Your task to perform on an android device: turn pop-ups on in chrome Image 0: 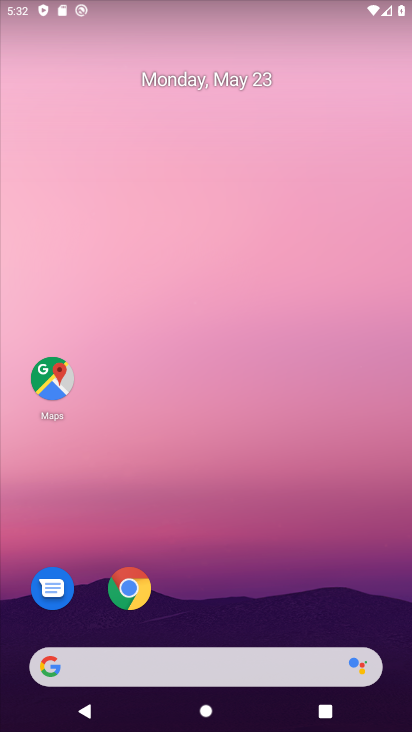
Step 0: drag from (261, 560) to (263, 2)
Your task to perform on an android device: turn pop-ups on in chrome Image 1: 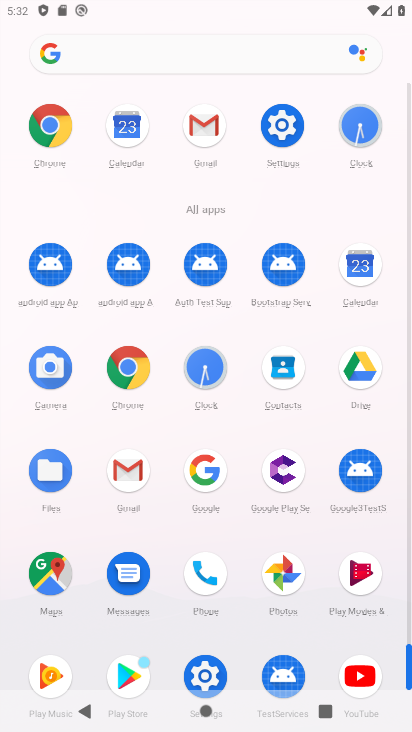
Step 1: click (123, 363)
Your task to perform on an android device: turn pop-ups on in chrome Image 2: 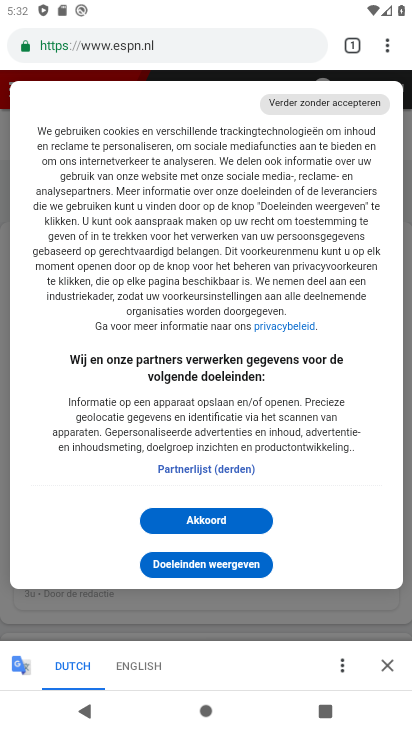
Step 2: click (169, 45)
Your task to perform on an android device: turn pop-ups on in chrome Image 3: 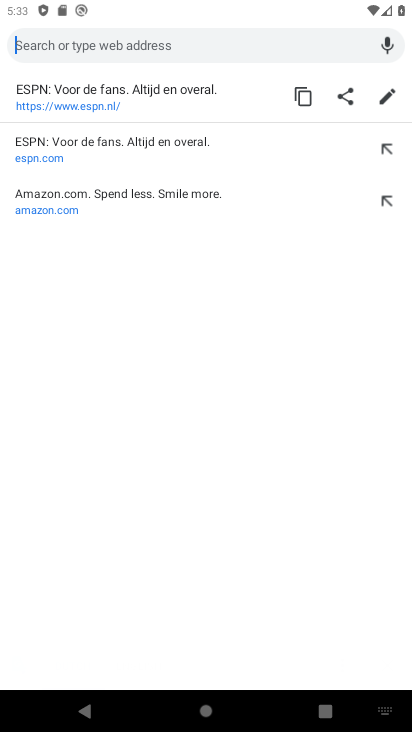
Step 3: press back button
Your task to perform on an android device: turn pop-ups on in chrome Image 4: 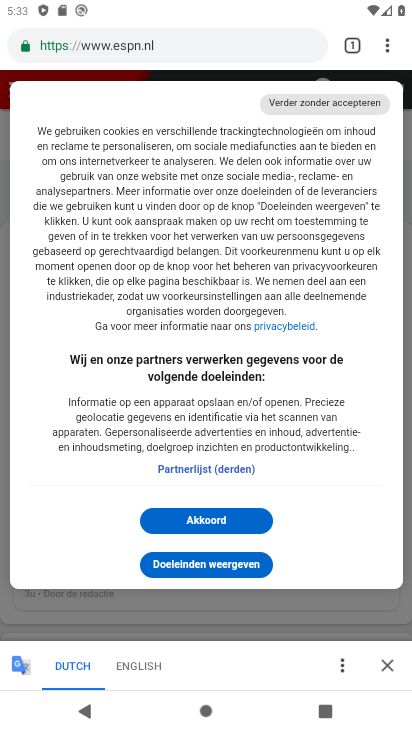
Step 4: drag from (385, 46) to (240, 540)
Your task to perform on an android device: turn pop-ups on in chrome Image 5: 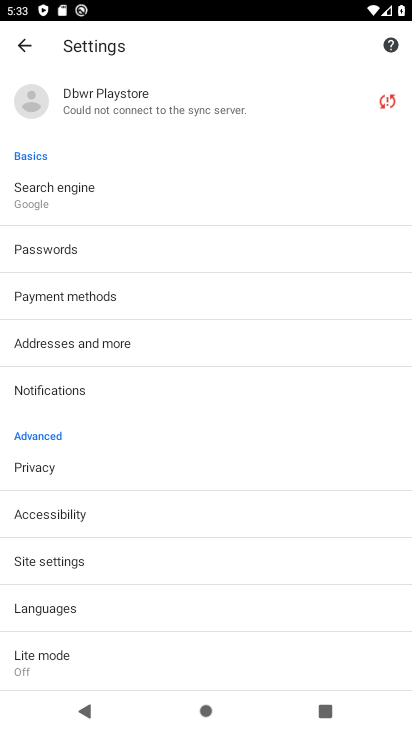
Step 5: drag from (192, 558) to (188, 183)
Your task to perform on an android device: turn pop-ups on in chrome Image 6: 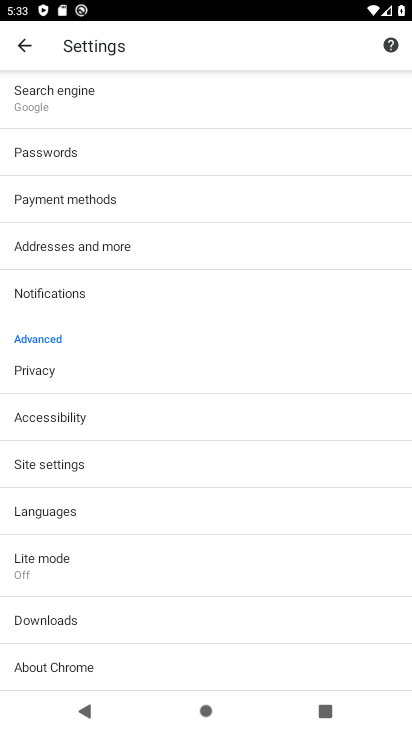
Step 6: click (81, 462)
Your task to perform on an android device: turn pop-ups on in chrome Image 7: 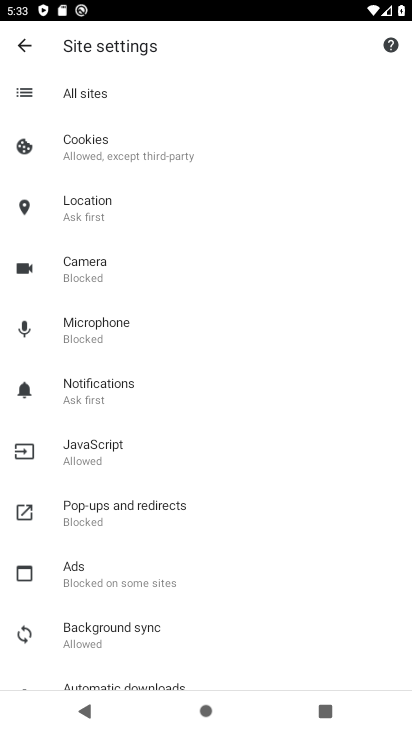
Step 7: click (136, 502)
Your task to perform on an android device: turn pop-ups on in chrome Image 8: 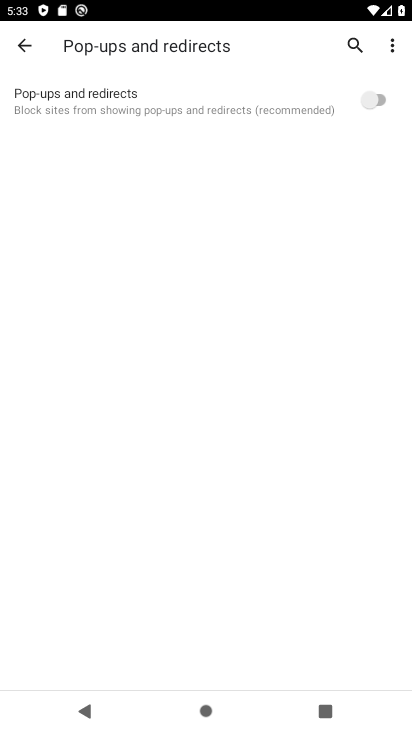
Step 8: click (377, 99)
Your task to perform on an android device: turn pop-ups on in chrome Image 9: 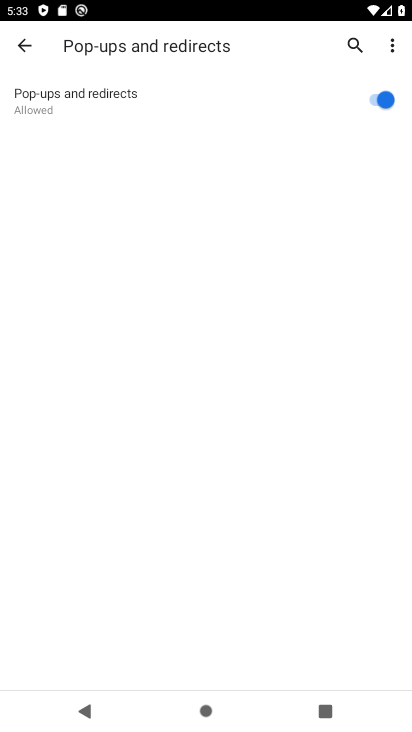
Step 9: task complete